Your task to perform on an android device: Go to Amazon Image 0: 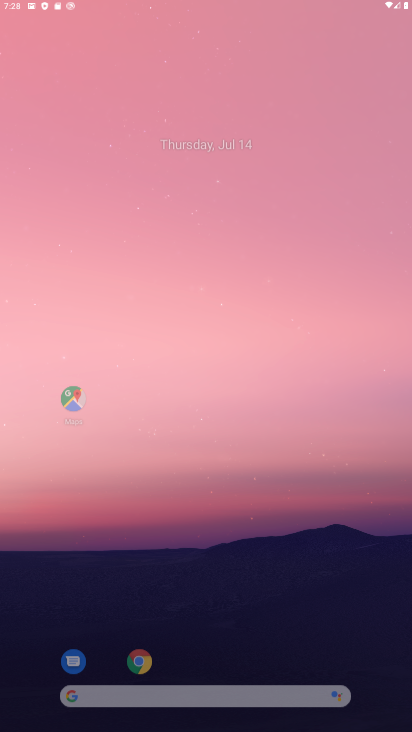
Step 0: click (406, 306)
Your task to perform on an android device: Go to Amazon Image 1: 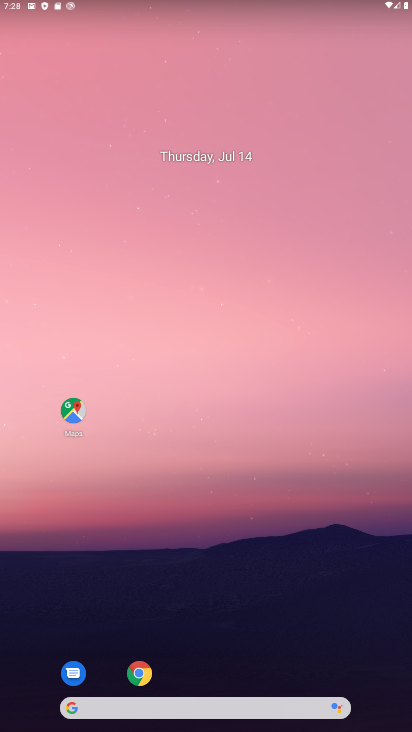
Step 1: drag from (193, 635) to (247, 156)
Your task to perform on an android device: Go to Amazon Image 2: 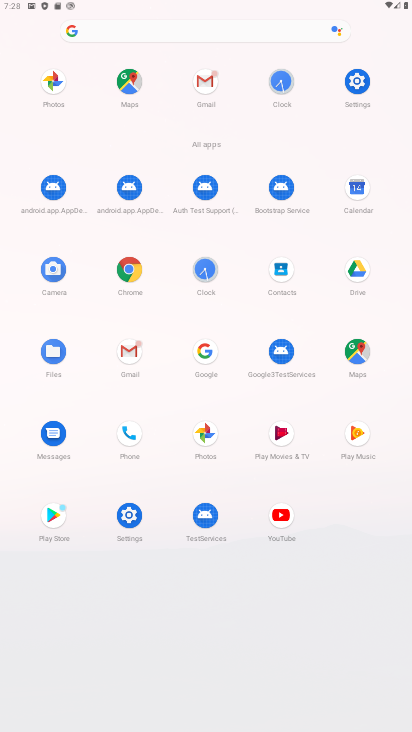
Step 2: click (132, 267)
Your task to perform on an android device: Go to Amazon Image 3: 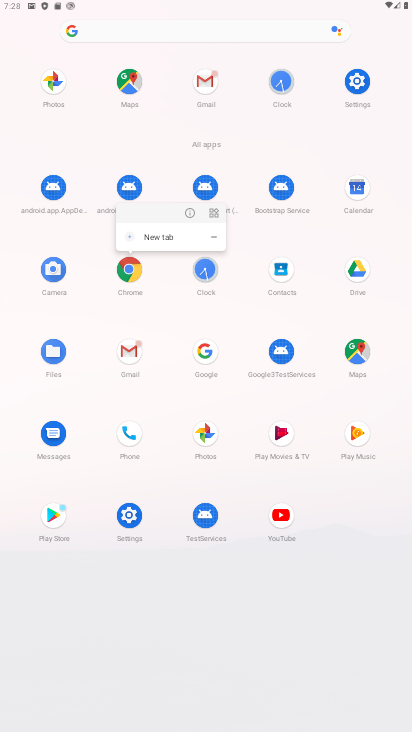
Step 3: click (190, 213)
Your task to perform on an android device: Go to Amazon Image 4: 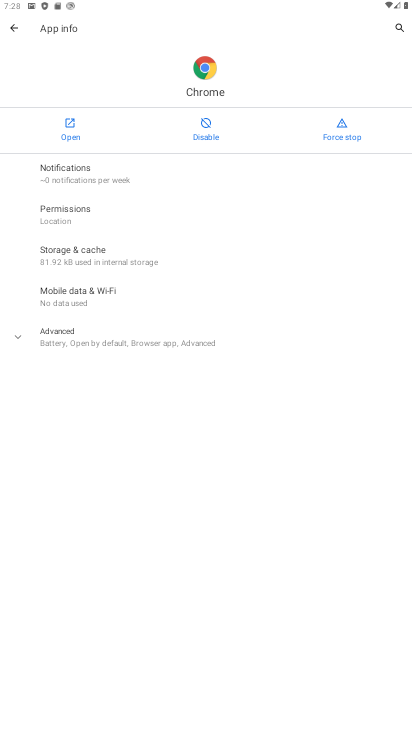
Step 4: click (64, 133)
Your task to perform on an android device: Go to Amazon Image 5: 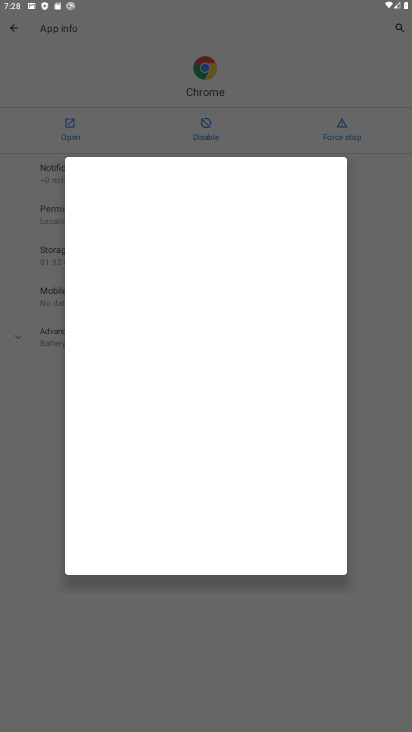
Step 5: drag from (149, 624) to (181, 276)
Your task to perform on an android device: Go to Amazon Image 6: 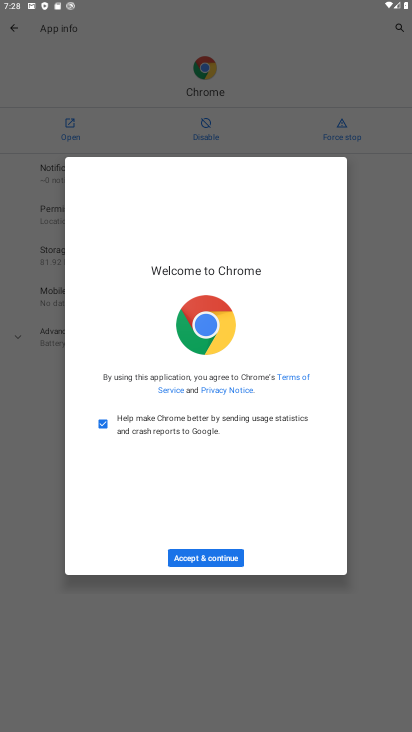
Step 6: click (212, 556)
Your task to perform on an android device: Go to Amazon Image 7: 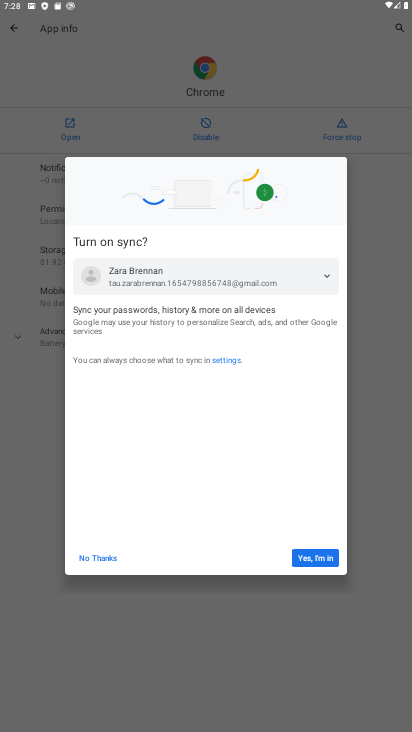
Step 7: click (313, 559)
Your task to perform on an android device: Go to Amazon Image 8: 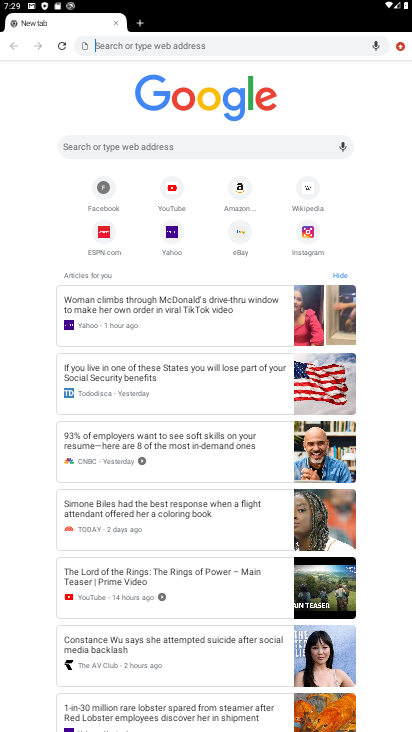
Step 8: click (241, 193)
Your task to perform on an android device: Go to Amazon Image 9: 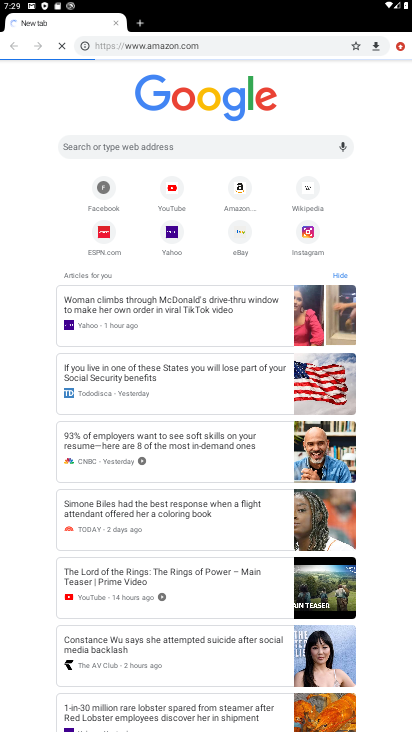
Step 9: drag from (168, 595) to (261, 232)
Your task to perform on an android device: Go to Amazon Image 10: 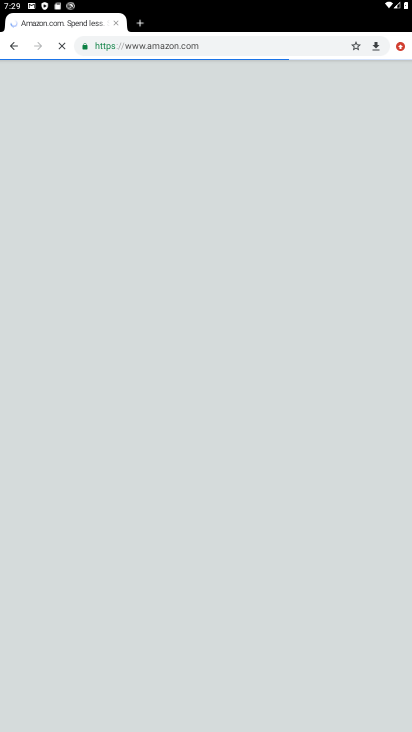
Step 10: click (393, 180)
Your task to perform on an android device: Go to Amazon Image 11: 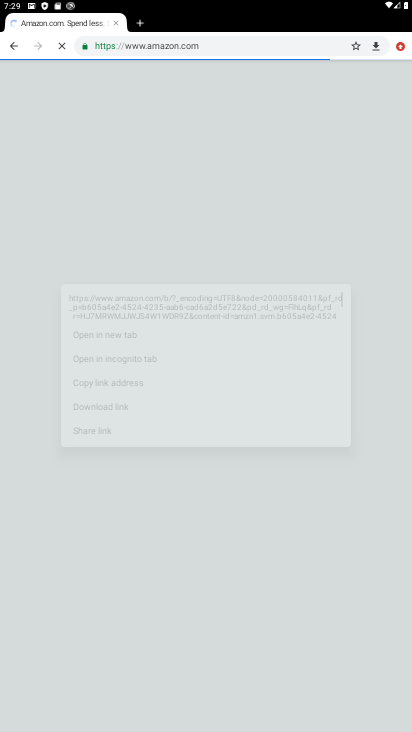
Step 11: task complete